Your task to perform on an android device: check the backup settings in the google photos Image 0: 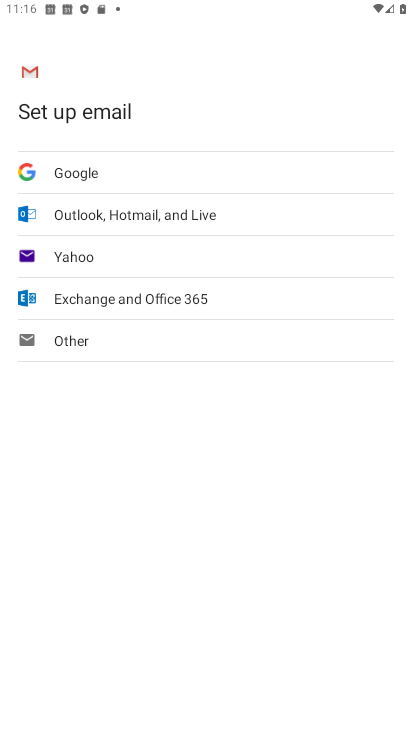
Step 0: drag from (187, 552) to (249, 308)
Your task to perform on an android device: check the backup settings in the google photos Image 1: 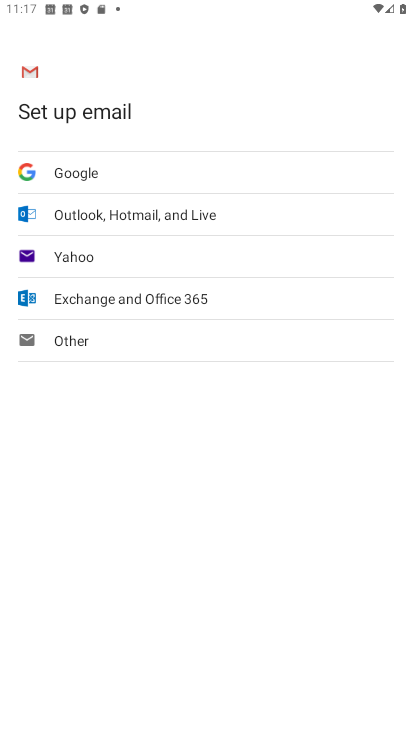
Step 1: drag from (211, 446) to (258, 248)
Your task to perform on an android device: check the backup settings in the google photos Image 2: 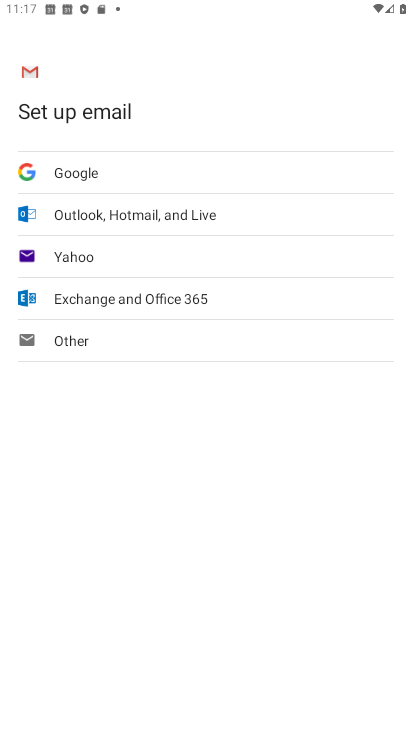
Step 2: drag from (93, 414) to (297, 86)
Your task to perform on an android device: check the backup settings in the google photos Image 3: 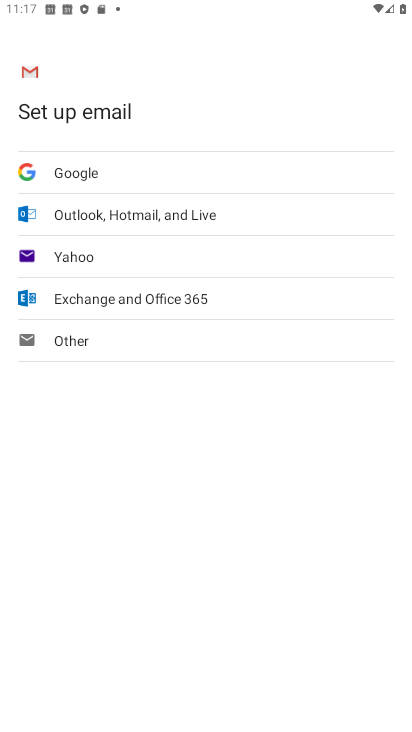
Step 3: drag from (141, 585) to (259, 251)
Your task to perform on an android device: check the backup settings in the google photos Image 4: 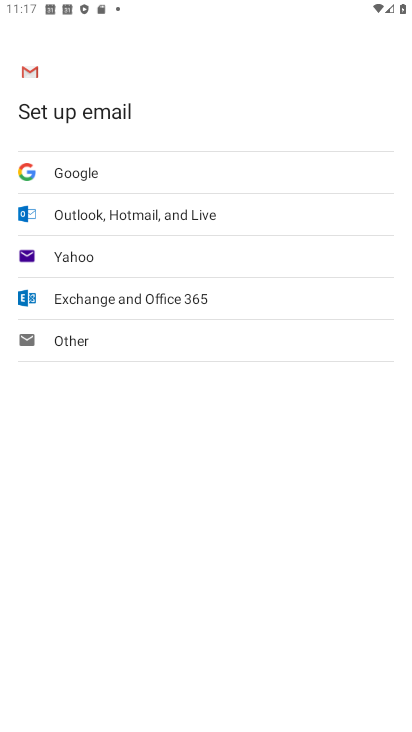
Step 4: drag from (223, 458) to (225, 132)
Your task to perform on an android device: check the backup settings in the google photos Image 5: 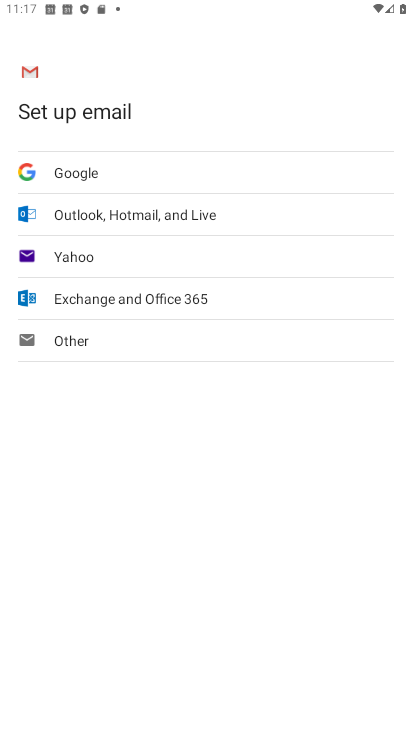
Step 5: drag from (229, 463) to (268, 209)
Your task to perform on an android device: check the backup settings in the google photos Image 6: 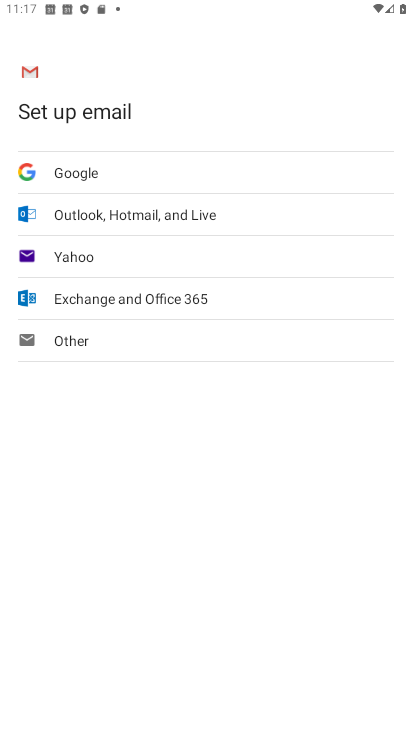
Step 6: drag from (248, 546) to (205, 235)
Your task to perform on an android device: check the backup settings in the google photos Image 7: 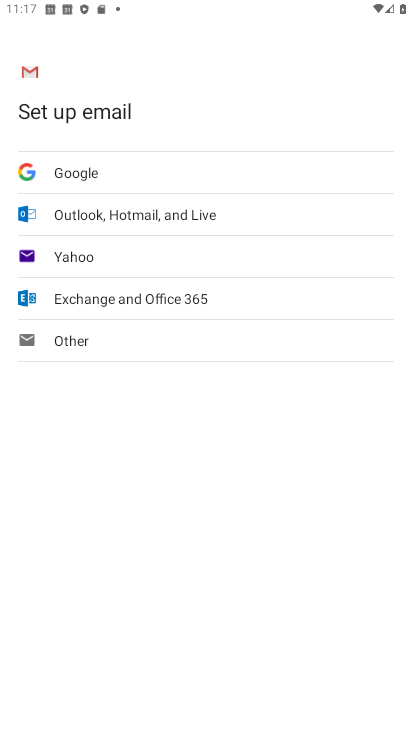
Step 7: drag from (171, 565) to (268, 248)
Your task to perform on an android device: check the backup settings in the google photos Image 8: 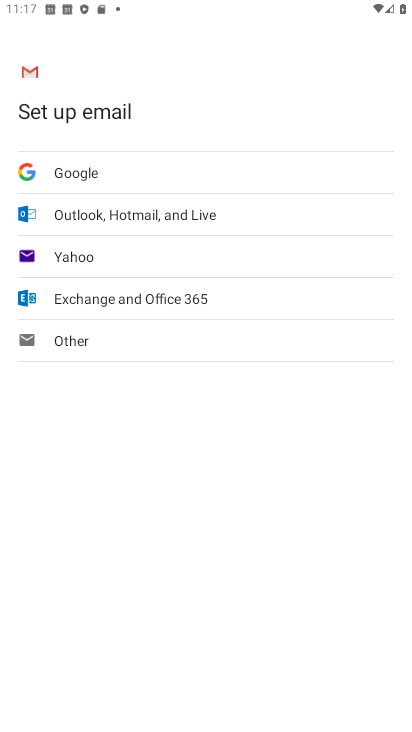
Step 8: press home button
Your task to perform on an android device: check the backup settings in the google photos Image 9: 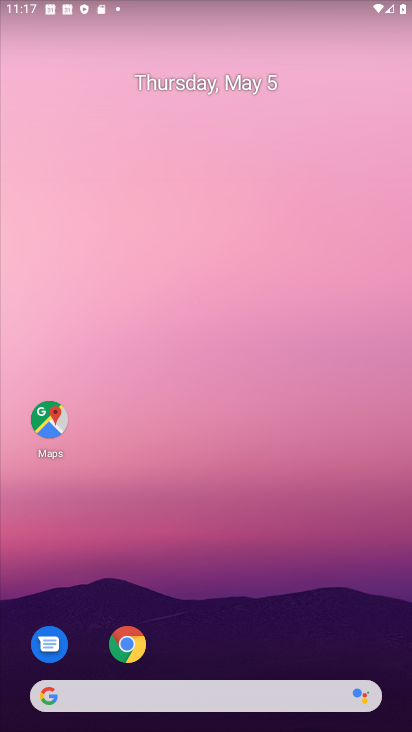
Step 9: drag from (206, 645) to (206, 212)
Your task to perform on an android device: check the backup settings in the google photos Image 10: 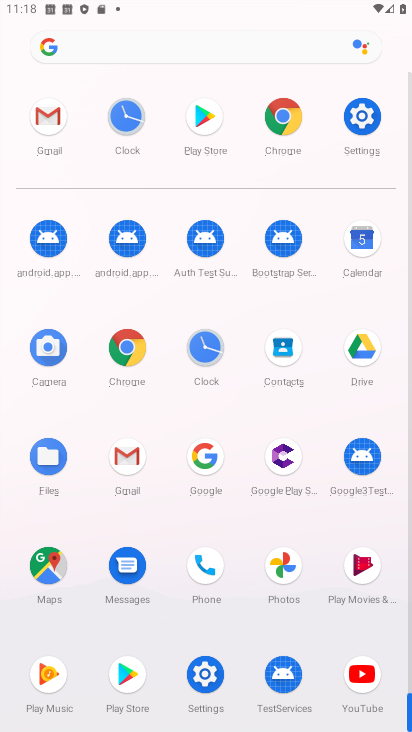
Step 10: click (285, 563)
Your task to perform on an android device: check the backup settings in the google photos Image 11: 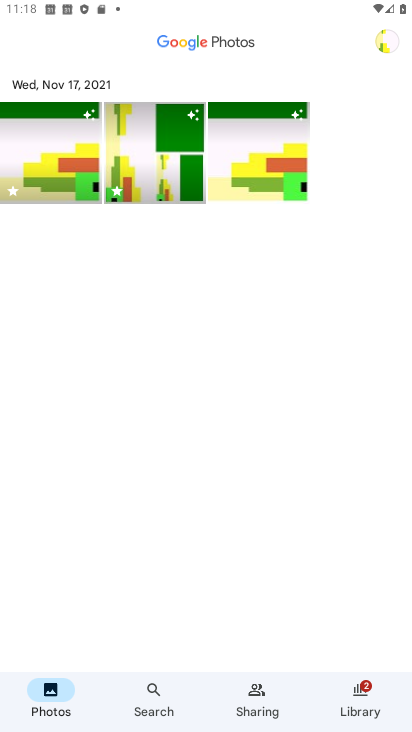
Step 11: drag from (79, 322) to (391, 392)
Your task to perform on an android device: check the backup settings in the google photos Image 12: 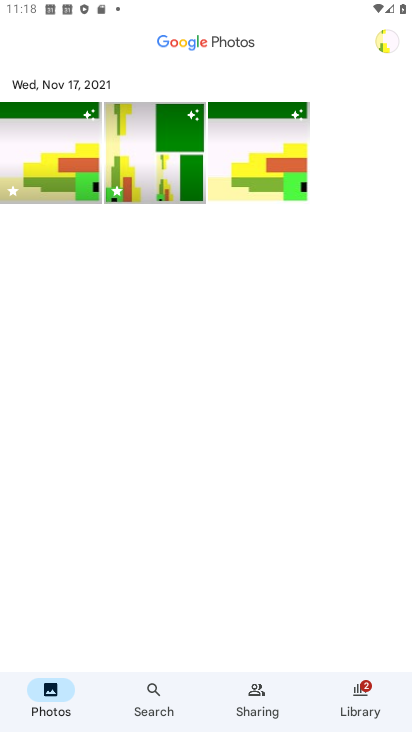
Step 12: drag from (290, 515) to (305, 148)
Your task to perform on an android device: check the backup settings in the google photos Image 13: 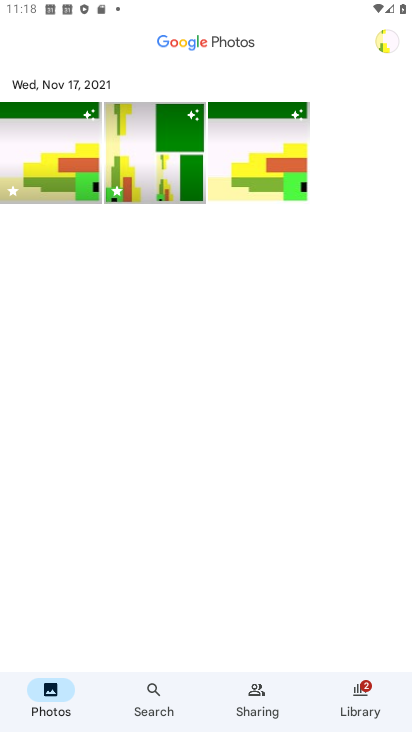
Step 13: drag from (292, 491) to (234, 326)
Your task to perform on an android device: check the backup settings in the google photos Image 14: 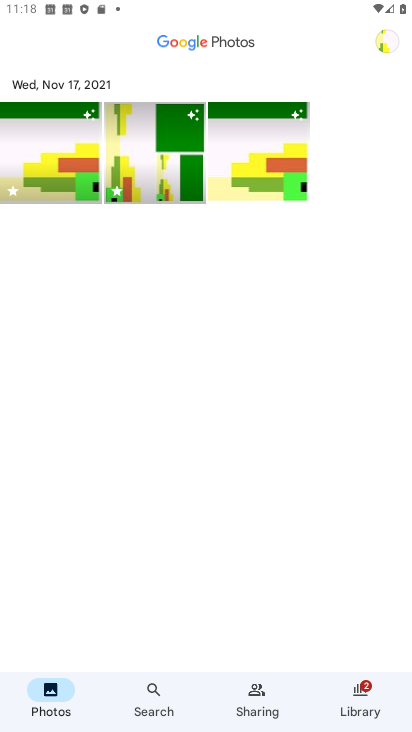
Step 14: click (384, 47)
Your task to perform on an android device: check the backup settings in the google photos Image 15: 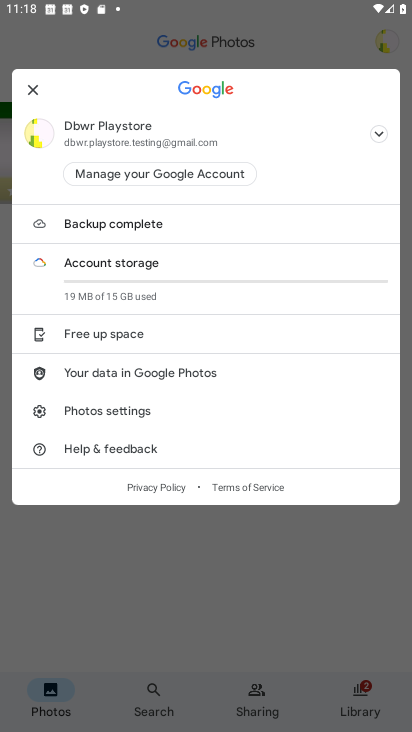
Step 15: click (127, 417)
Your task to perform on an android device: check the backup settings in the google photos Image 16: 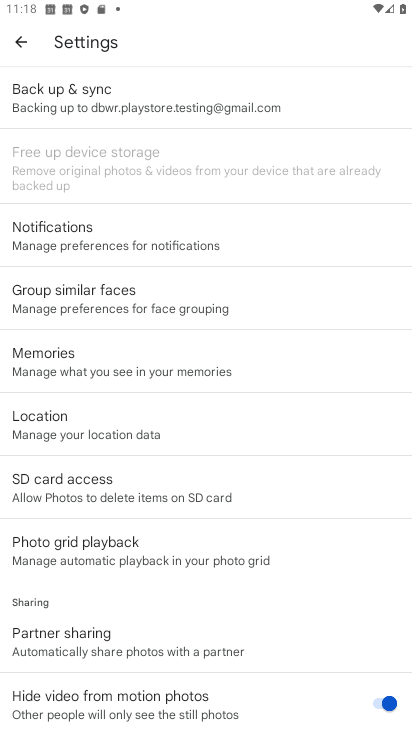
Step 16: click (141, 98)
Your task to perform on an android device: check the backup settings in the google photos Image 17: 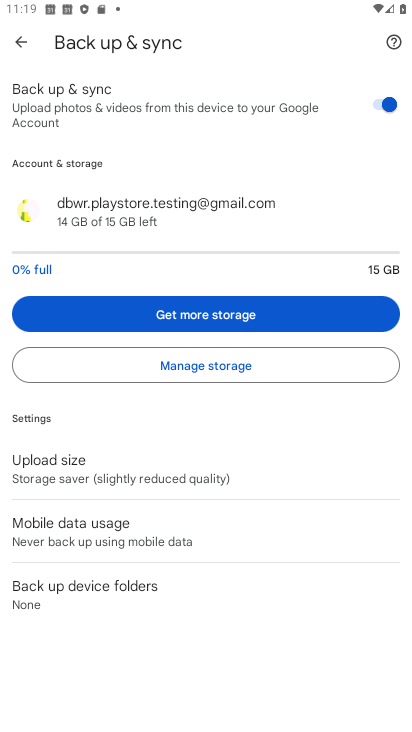
Step 17: task complete